Your task to perform on an android device: Open Chrome and go to settings Image 0: 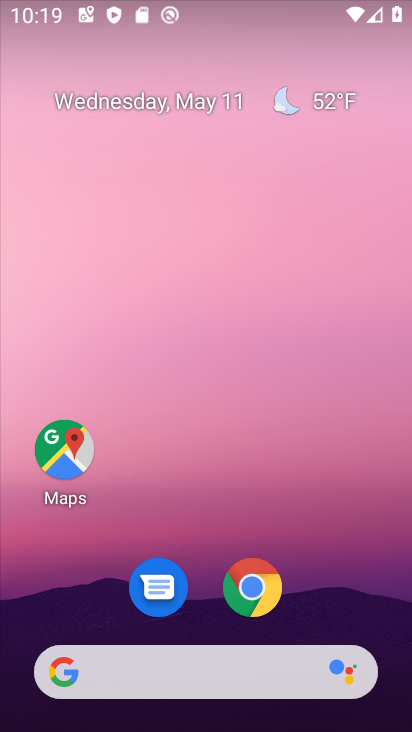
Step 0: drag from (323, 699) to (296, 224)
Your task to perform on an android device: Open Chrome and go to settings Image 1: 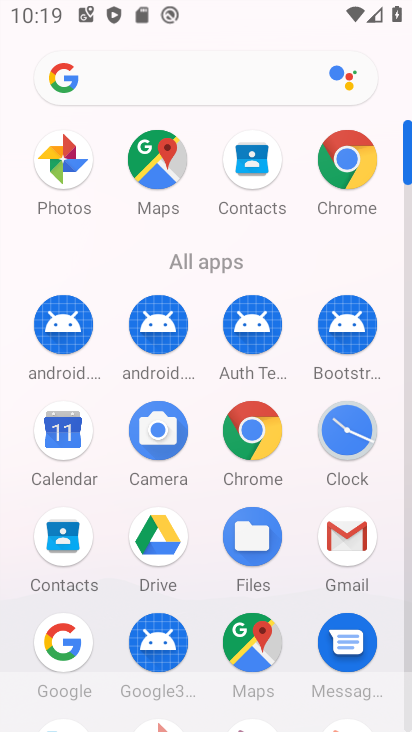
Step 1: click (243, 435)
Your task to perform on an android device: Open Chrome and go to settings Image 2: 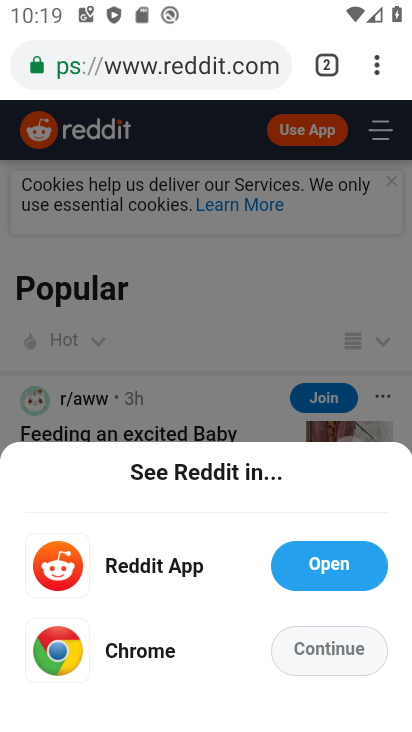
Step 2: press back button
Your task to perform on an android device: Open Chrome and go to settings Image 3: 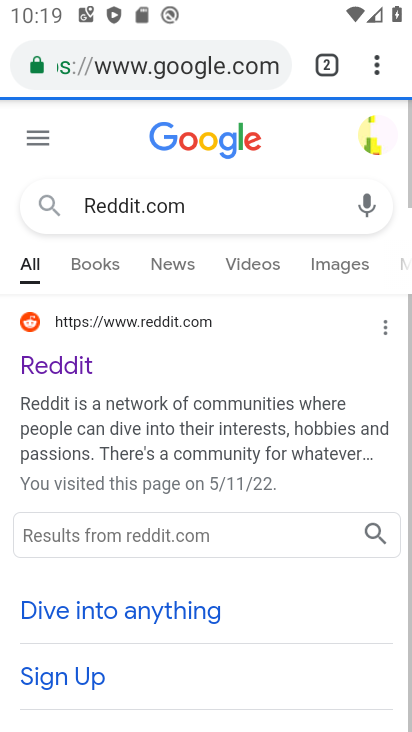
Step 3: click (375, 73)
Your task to perform on an android device: Open Chrome and go to settings Image 4: 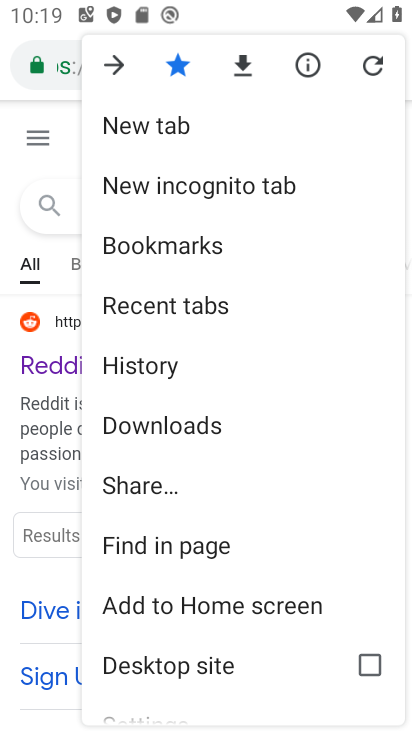
Step 4: drag from (229, 616) to (220, 482)
Your task to perform on an android device: Open Chrome and go to settings Image 5: 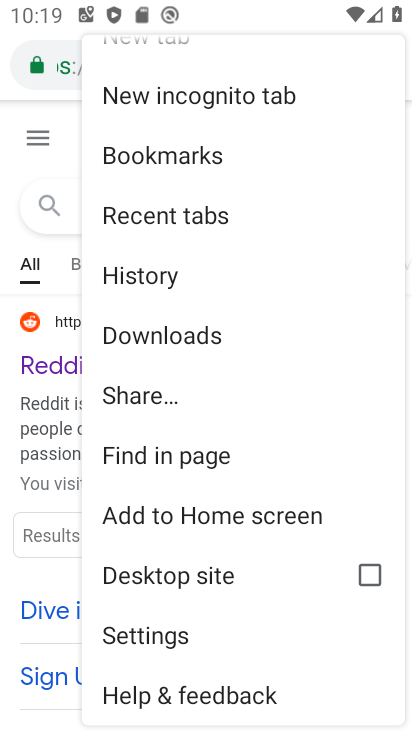
Step 5: click (154, 640)
Your task to perform on an android device: Open Chrome and go to settings Image 6: 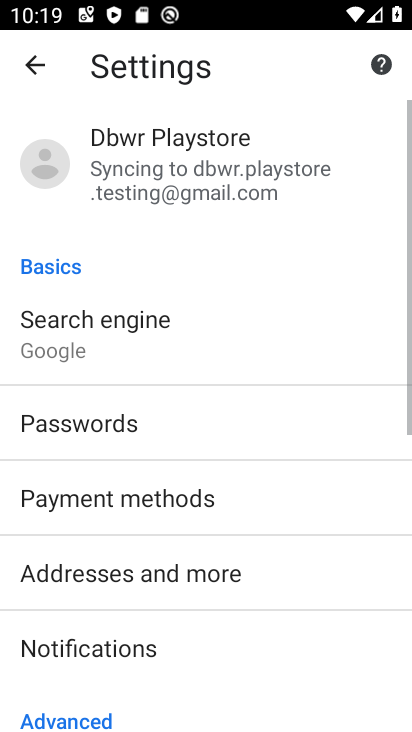
Step 6: task complete